Your task to perform on an android device: Open Google Chrome and click the shortcut for Amazon.com Image 0: 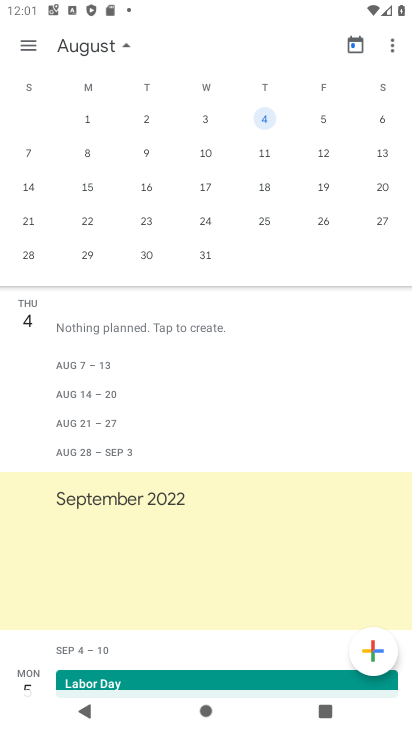
Step 0: press home button
Your task to perform on an android device: Open Google Chrome and click the shortcut for Amazon.com Image 1: 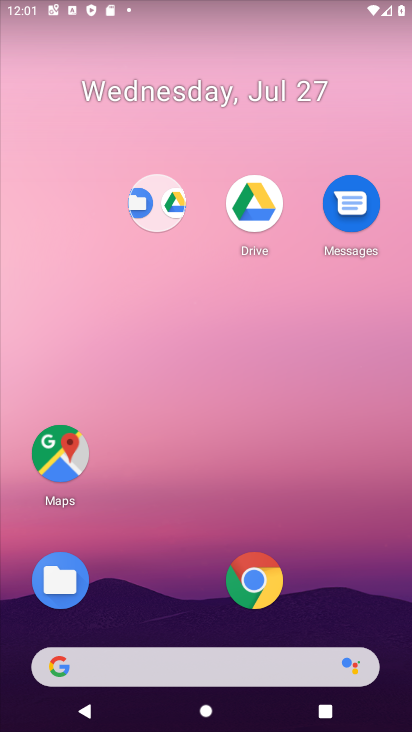
Step 1: click (267, 577)
Your task to perform on an android device: Open Google Chrome and click the shortcut for Amazon.com Image 2: 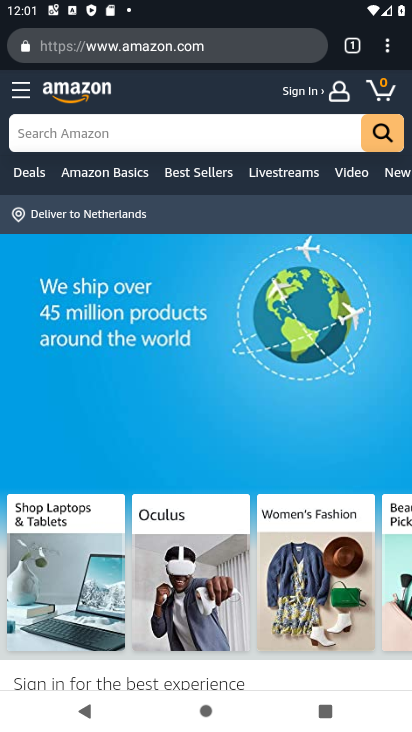
Step 2: task complete